Your task to perform on an android device: Clear the shopping cart on newegg.com. Add "razer huntsman" to the cart on newegg.com, then select checkout. Image 0: 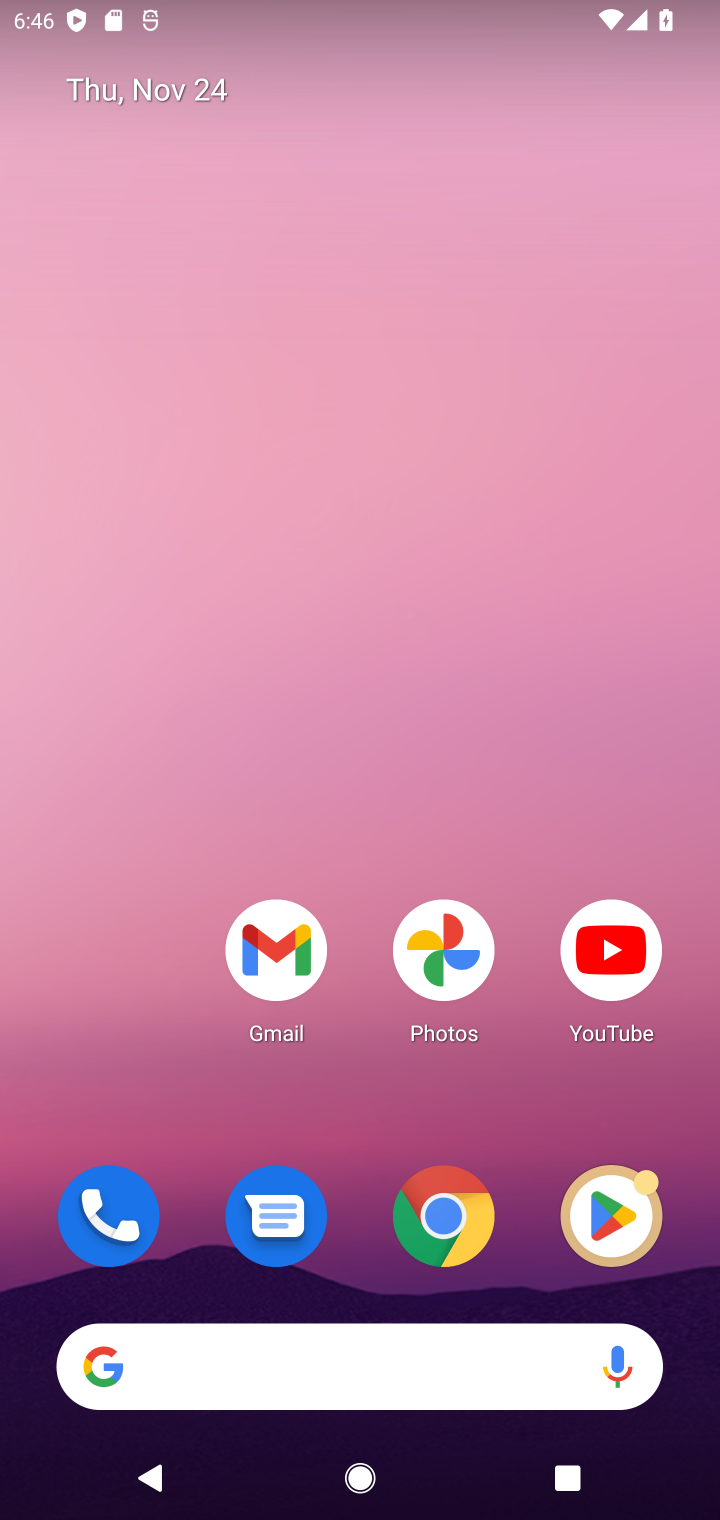
Step 0: click (435, 1229)
Your task to perform on an android device: Clear the shopping cart on newegg.com. Add "razer huntsman" to the cart on newegg.com, then select checkout. Image 1: 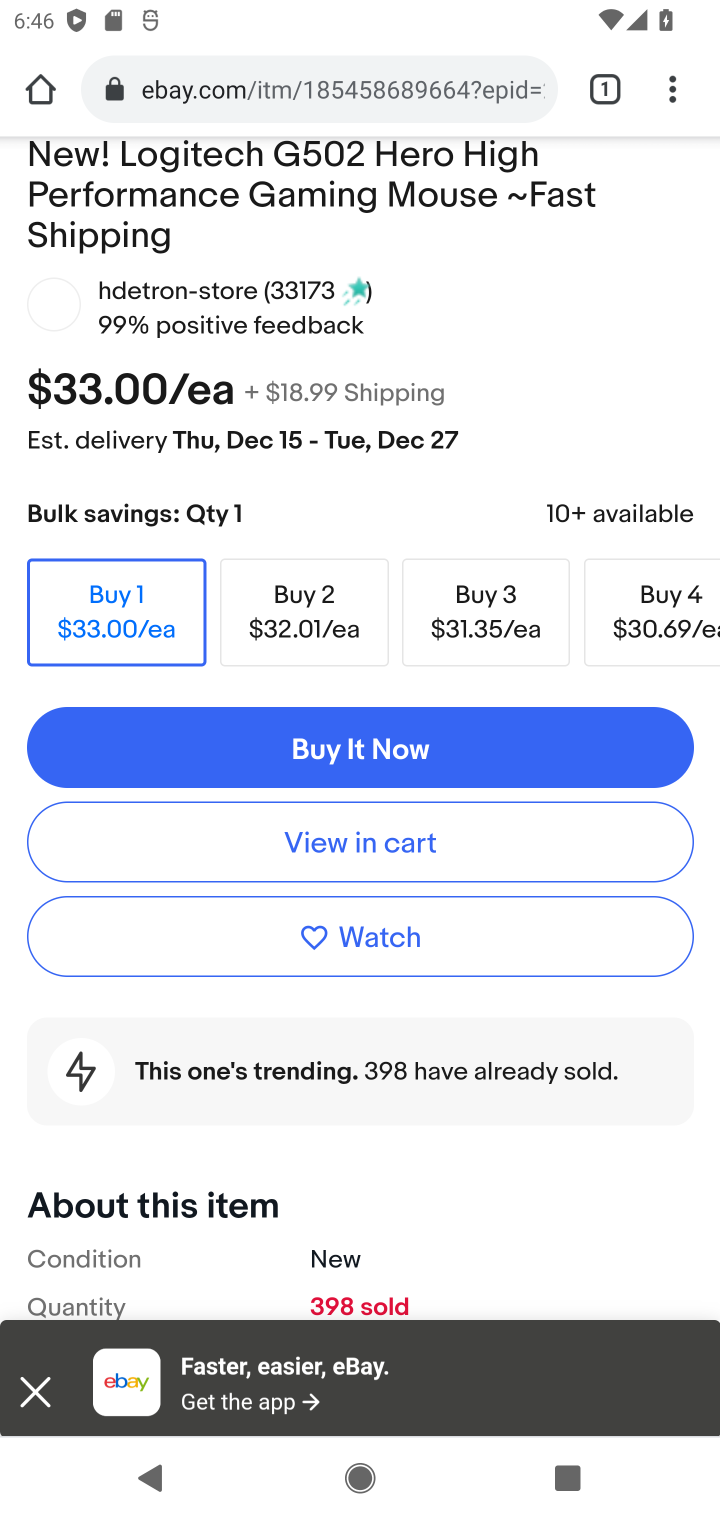
Step 1: click (303, 87)
Your task to perform on an android device: Clear the shopping cart on newegg.com. Add "razer huntsman" to the cart on newegg.com, then select checkout. Image 2: 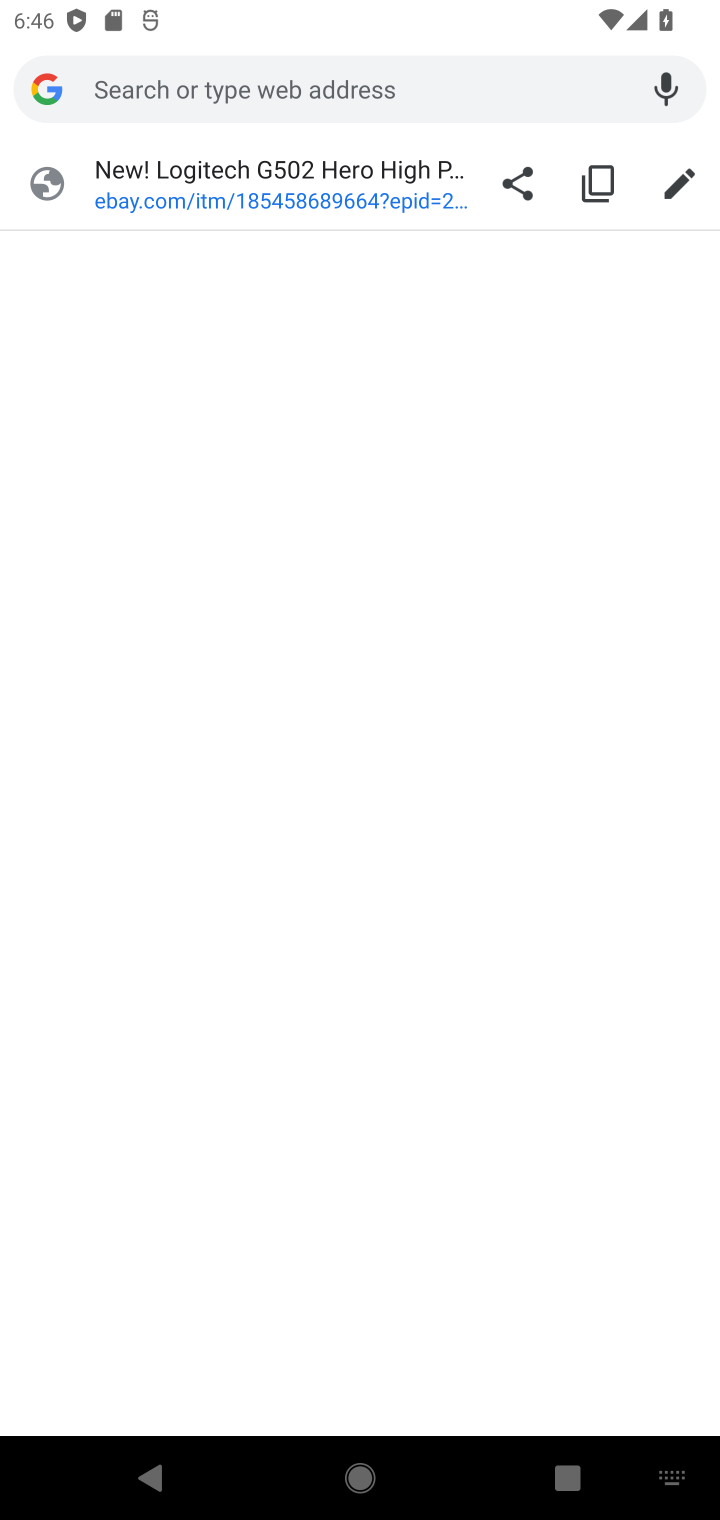
Step 2: type "newegg.com"
Your task to perform on an android device: Clear the shopping cart on newegg.com. Add "razer huntsman" to the cart on newegg.com, then select checkout. Image 3: 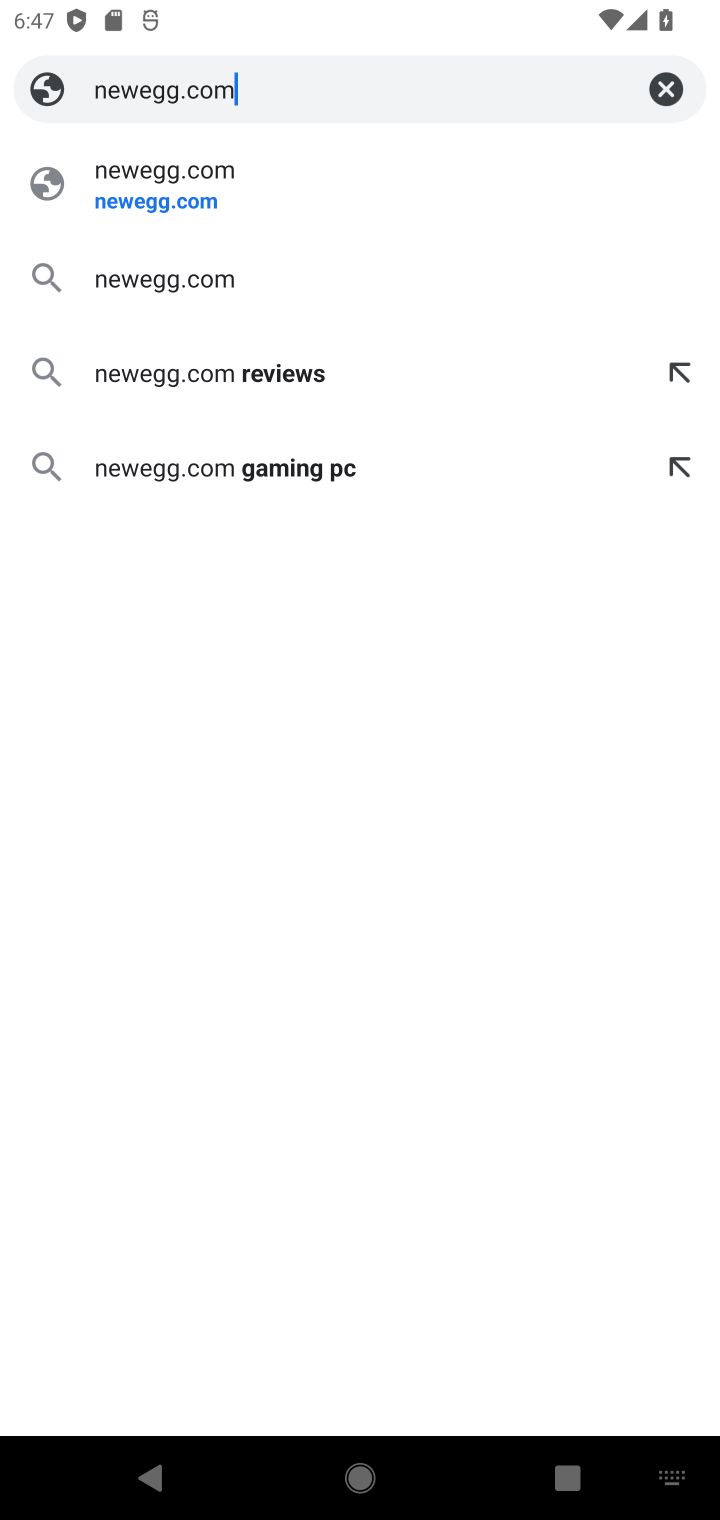
Step 3: click (221, 181)
Your task to perform on an android device: Clear the shopping cart on newegg.com. Add "razer huntsman" to the cart on newegg.com, then select checkout. Image 4: 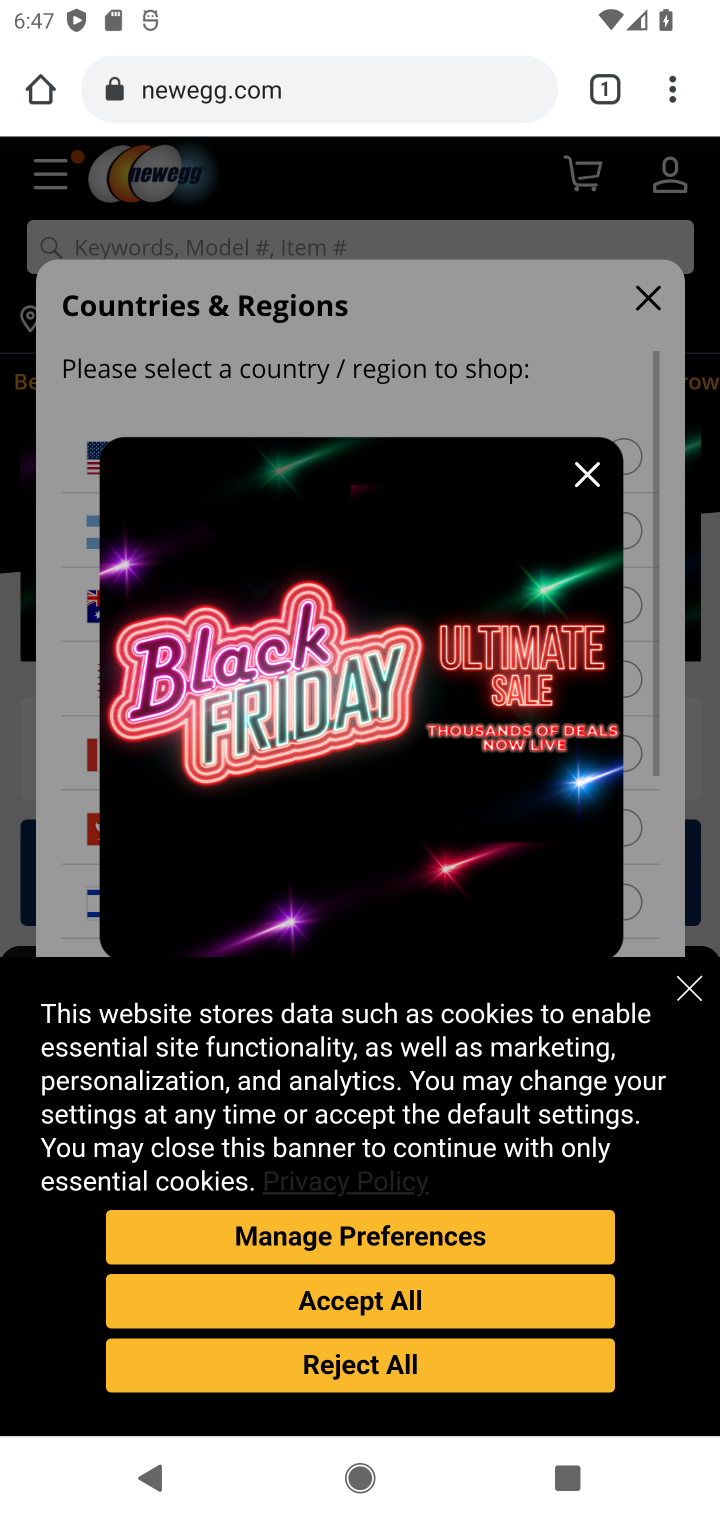
Step 4: click (653, 288)
Your task to perform on an android device: Clear the shopping cart on newegg.com. Add "razer huntsman" to the cart on newegg.com, then select checkout. Image 5: 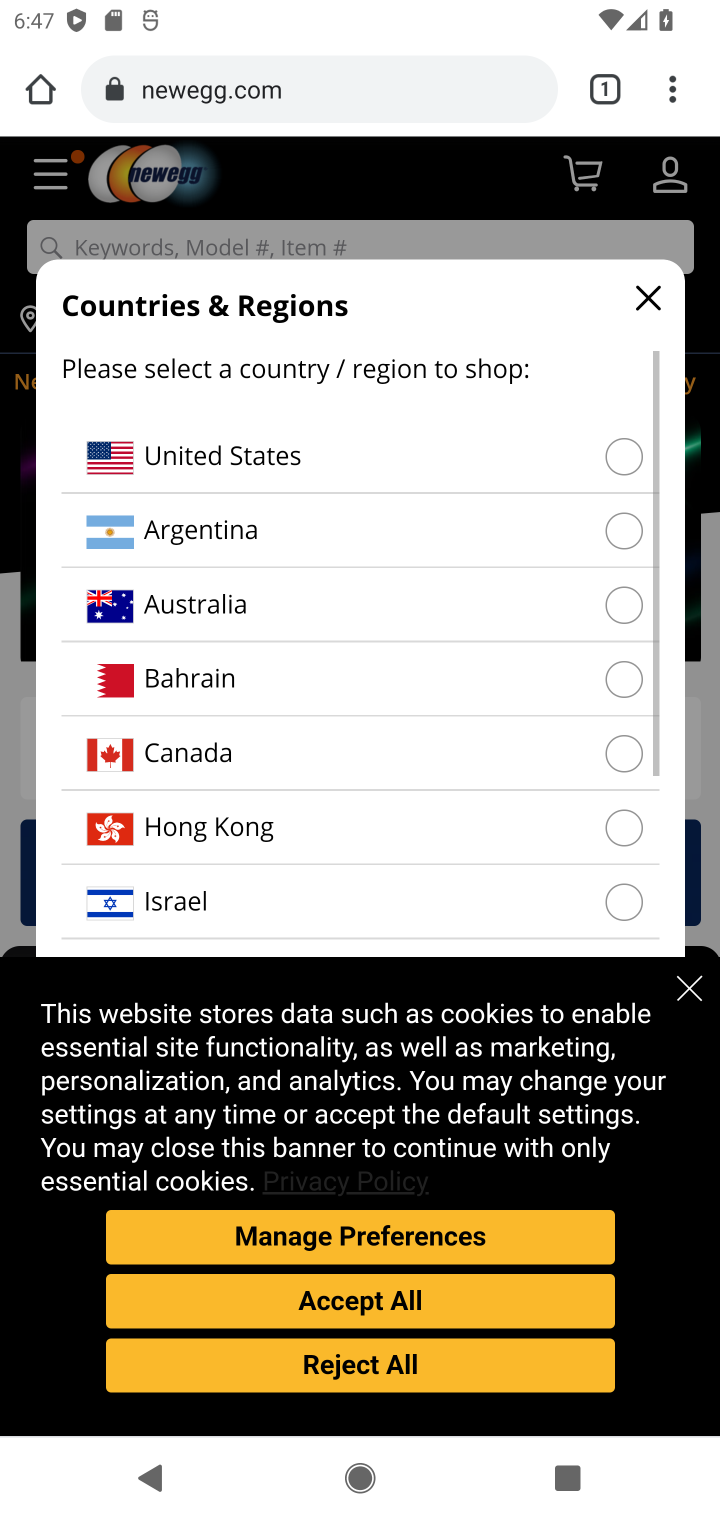
Step 5: click (648, 289)
Your task to perform on an android device: Clear the shopping cart on newegg.com. Add "razer huntsman" to the cart on newegg.com, then select checkout. Image 6: 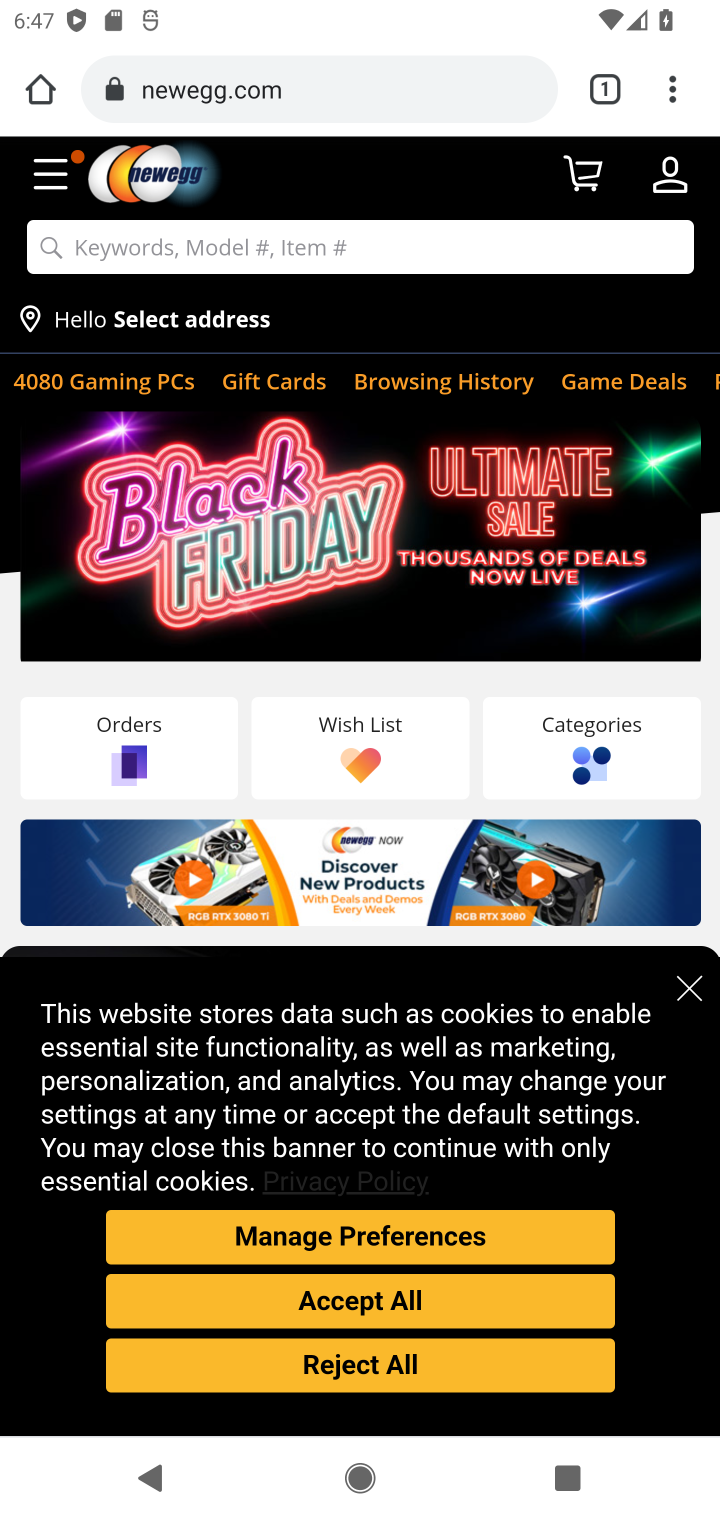
Step 6: click (568, 163)
Your task to perform on an android device: Clear the shopping cart on newegg.com. Add "razer huntsman" to the cart on newegg.com, then select checkout. Image 7: 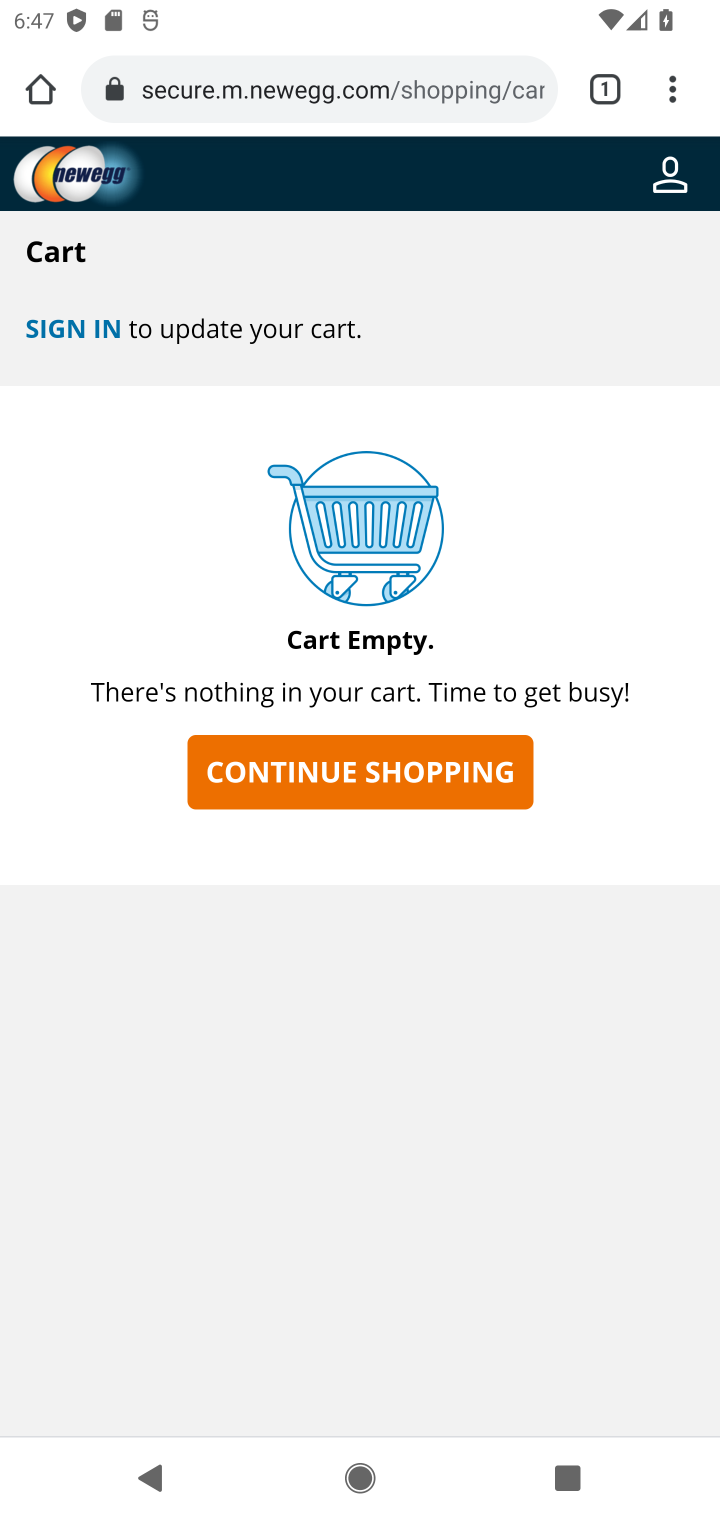
Step 7: press back button
Your task to perform on an android device: Clear the shopping cart on newegg.com. Add "razer huntsman" to the cart on newegg.com, then select checkout. Image 8: 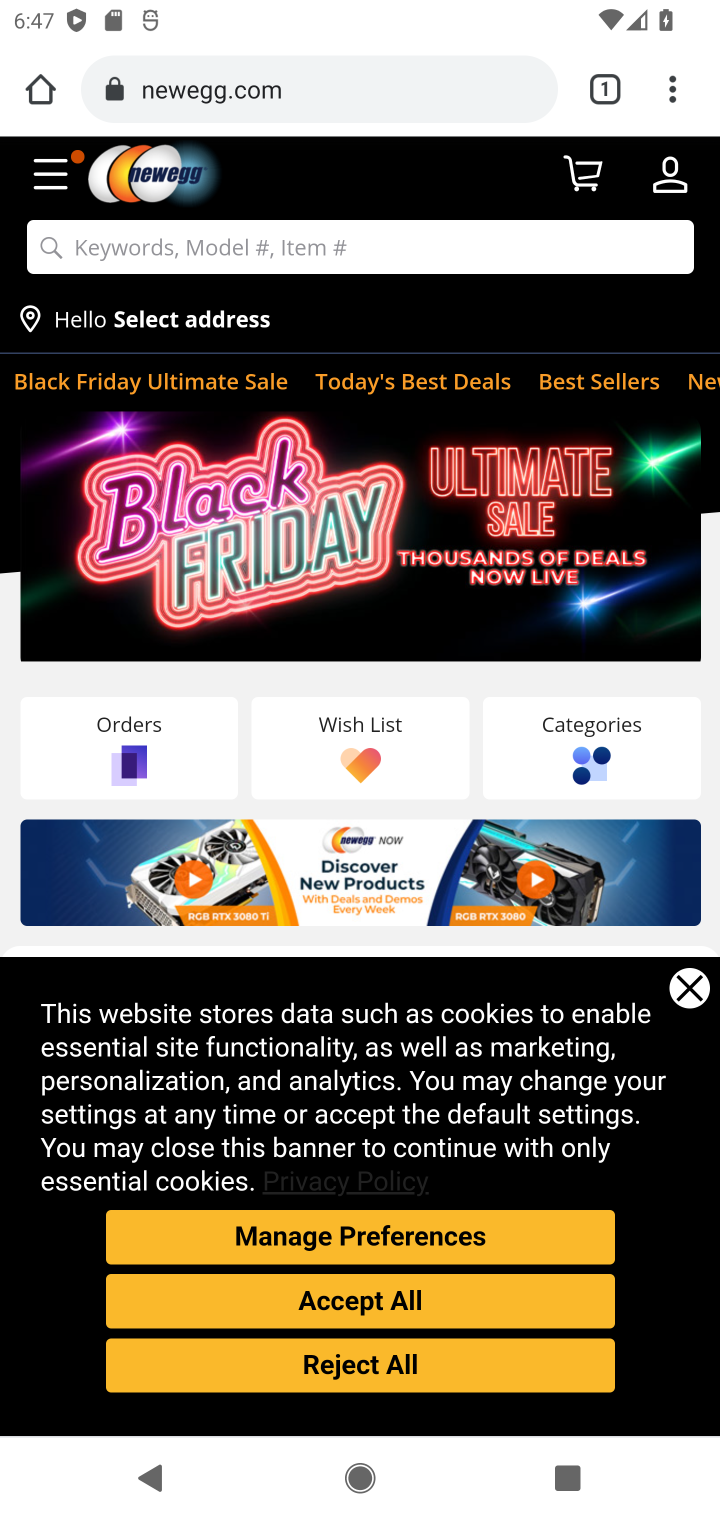
Step 8: click (363, 245)
Your task to perform on an android device: Clear the shopping cart on newegg.com. Add "razer huntsman" to the cart on newegg.com, then select checkout. Image 9: 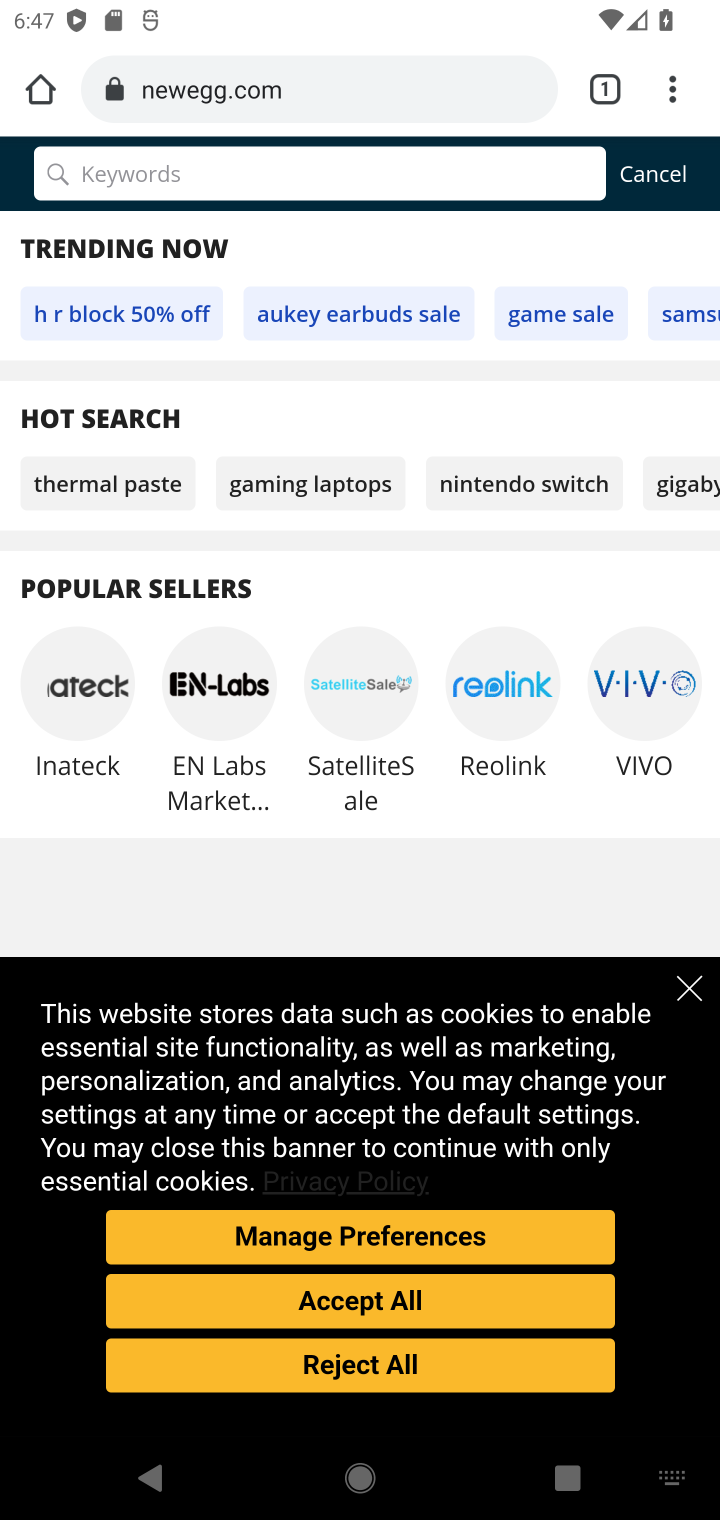
Step 9: type "razer huntsman"
Your task to perform on an android device: Clear the shopping cart on newegg.com. Add "razer huntsman" to the cart on newegg.com, then select checkout. Image 10: 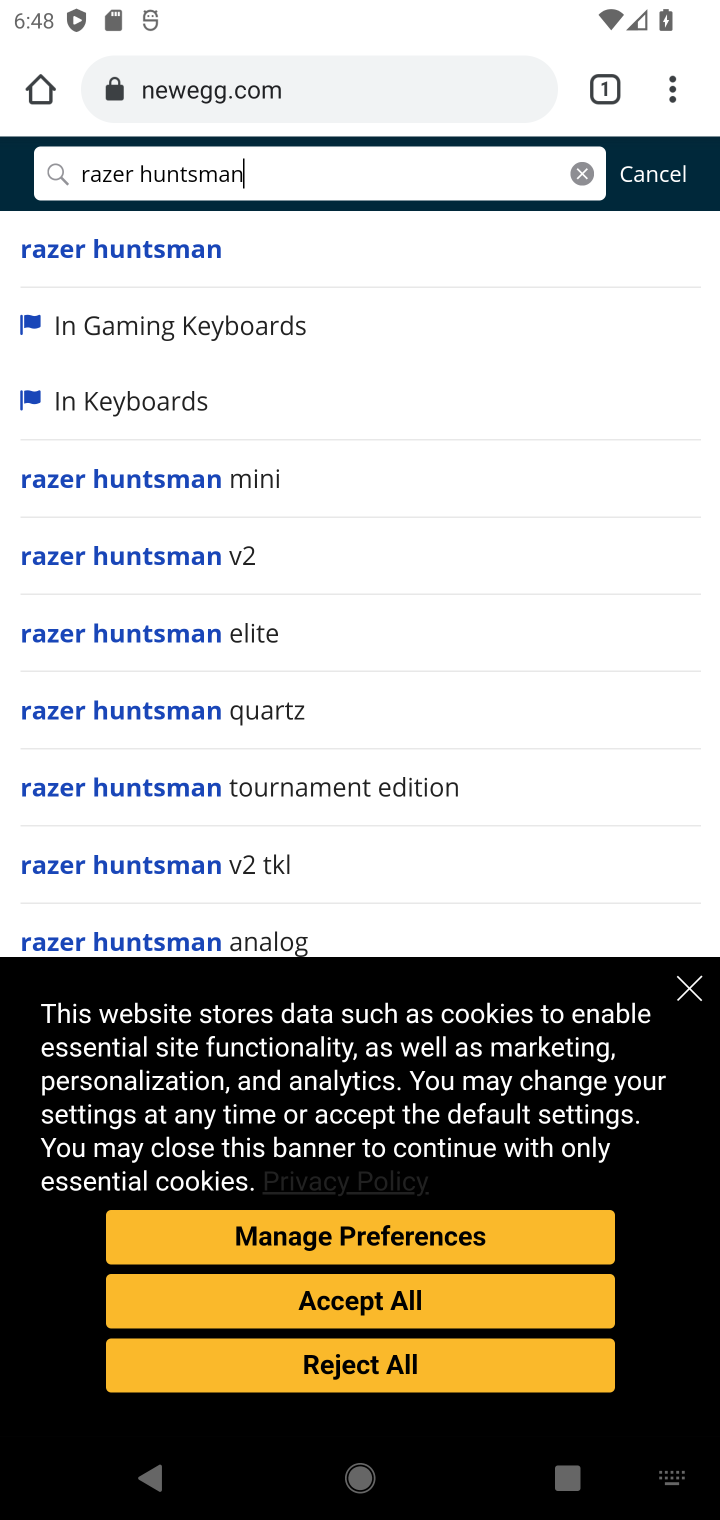
Step 10: click (58, 173)
Your task to perform on an android device: Clear the shopping cart on newegg.com. Add "razer huntsman" to the cart on newegg.com, then select checkout. Image 11: 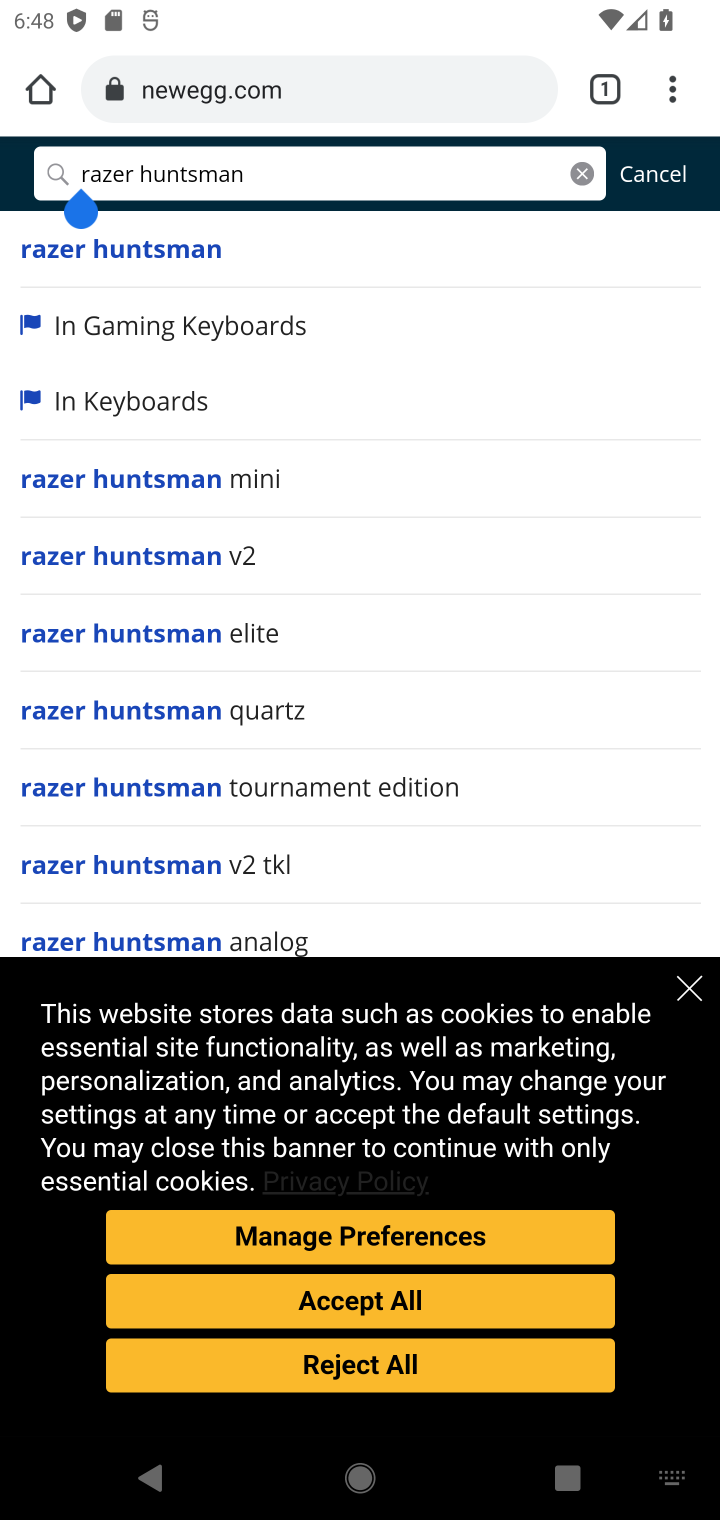
Step 11: click (155, 479)
Your task to perform on an android device: Clear the shopping cart on newegg.com. Add "razer huntsman" to the cart on newegg.com, then select checkout. Image 12: 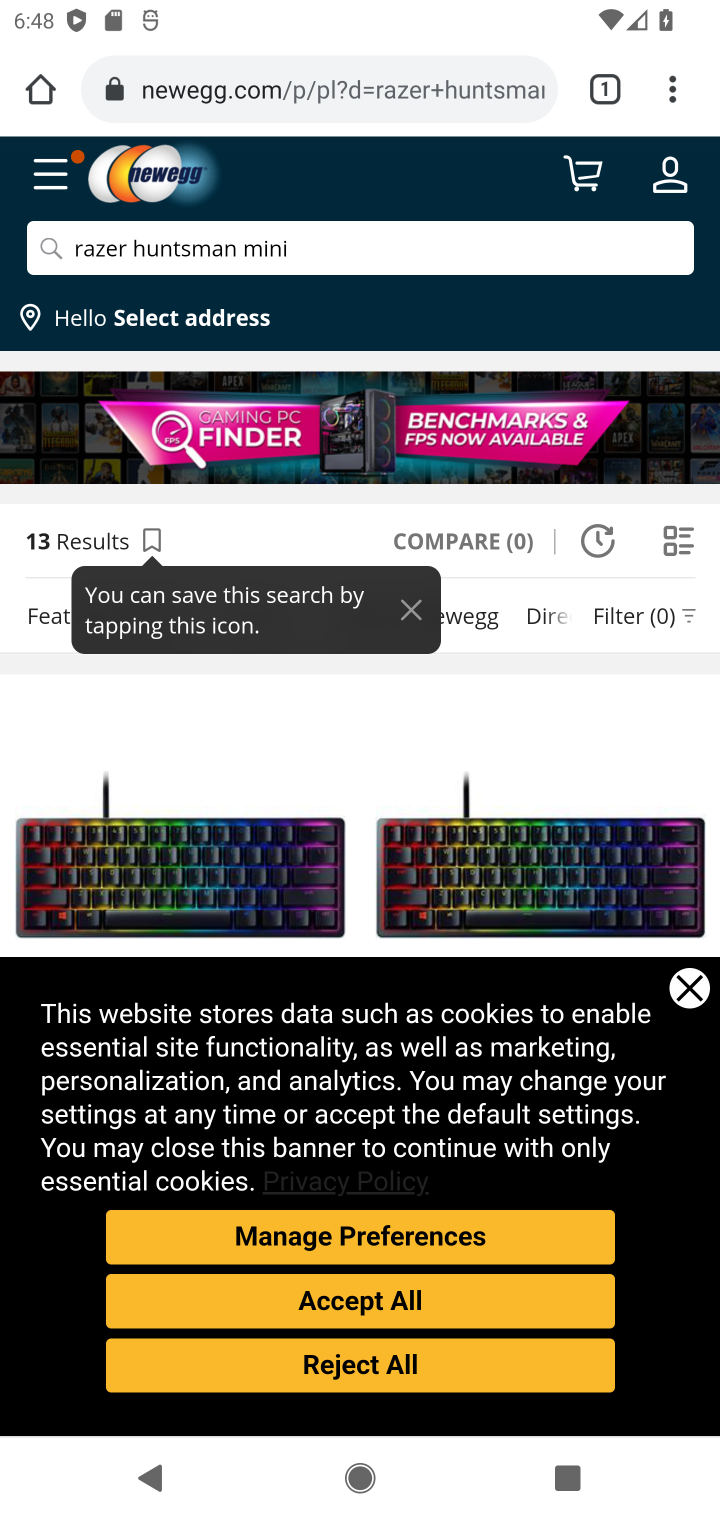
Step 12: click (696, 992)
Your task to perform on an android device: Clear the shopping cart on newegg.com. Add "razer huntsman" to the cart on newegg.com, then select checkout. Image 13: 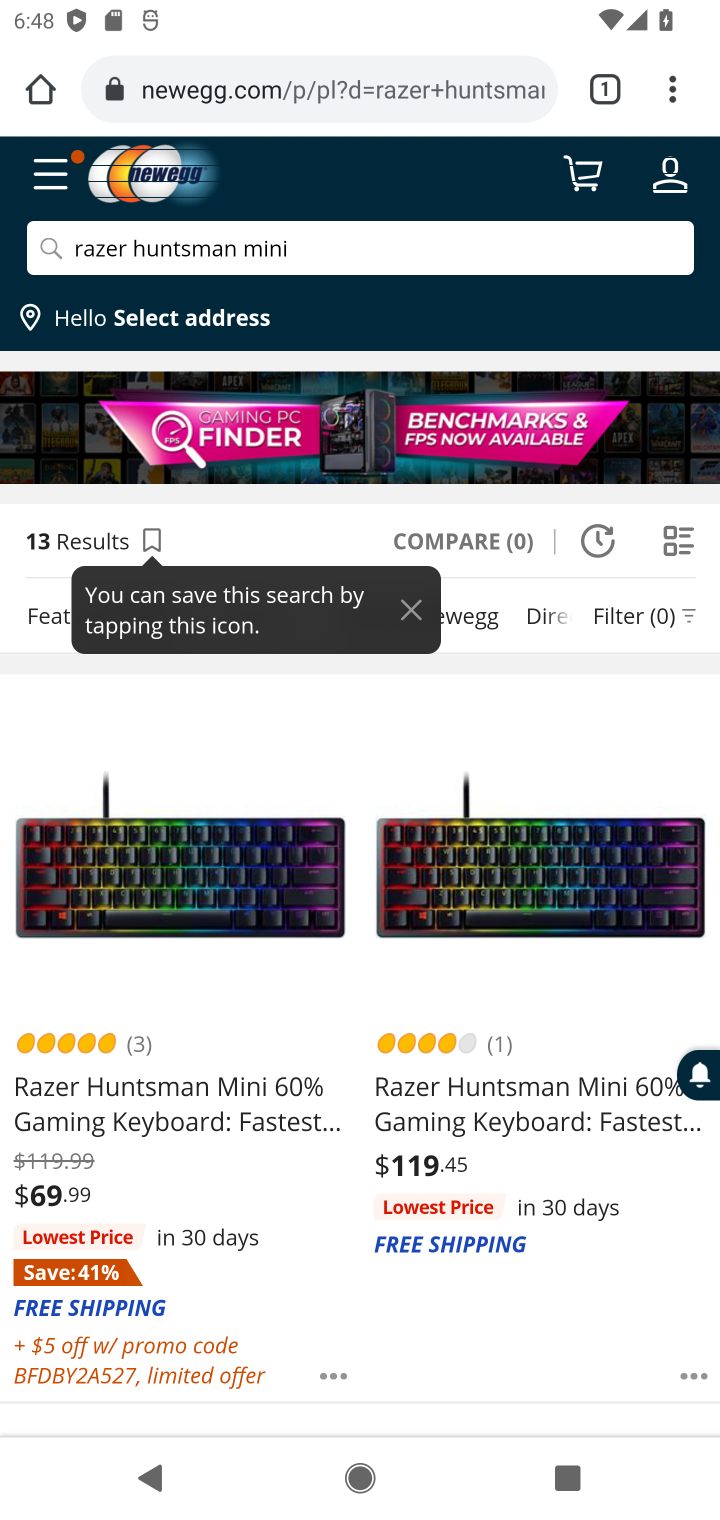
Step 13: drag from (273, 1188) to (270, 925)
Your task to perform on an android device: Clear the shopping cart on newegg.com. Add "razer huntsman" to the cart on newegg.com, then select checkout. Image 14: 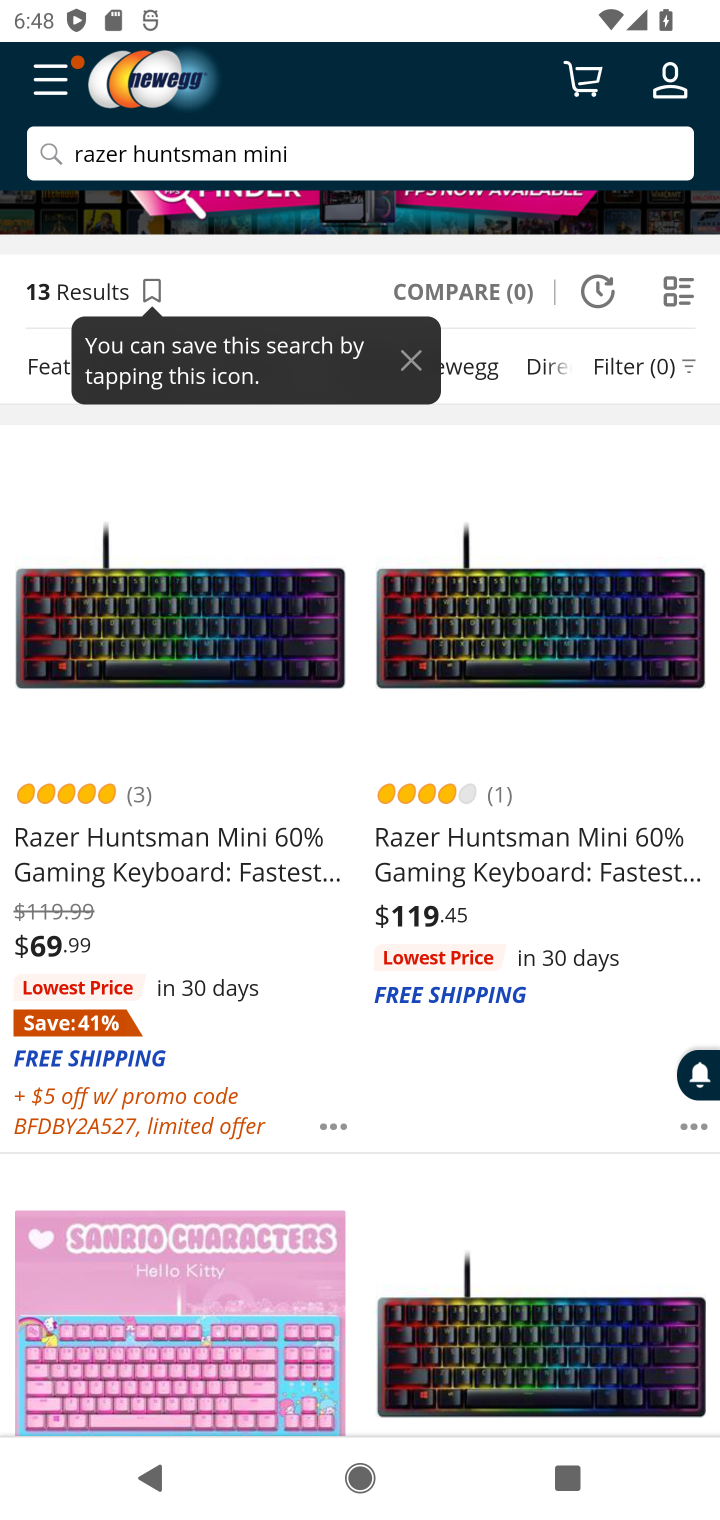
Step 14: click (137, 779)
Your task to perform on an android device: Clear the shopping cart on newegg.com. Add "razer huntsman" to the cart on newegg.com, then select checkout. Image 15: 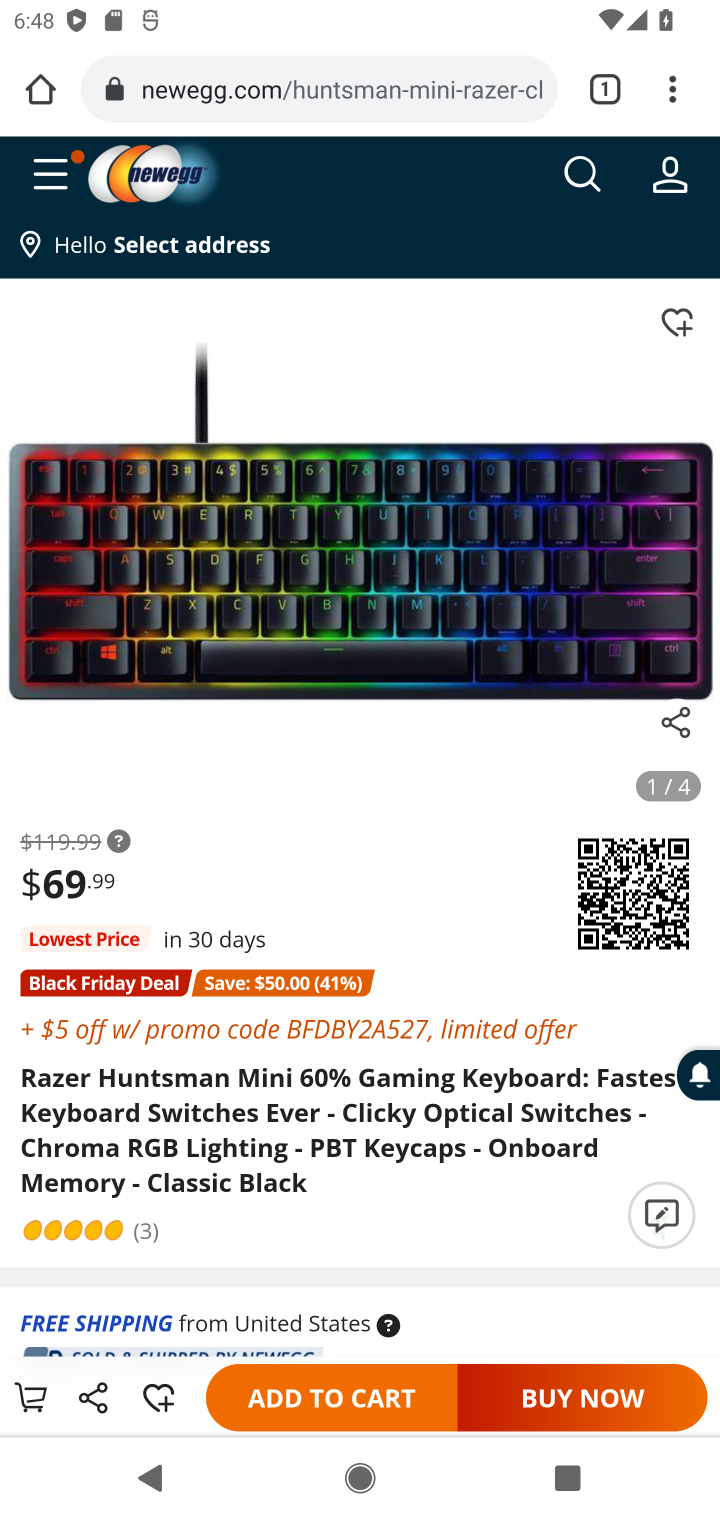
Step 15: drag from (435, 1181) to (428, 823)
Your task to perform on an android device: Clear the shopping cart on newegg.com. Add "razer huntsman" to the cart on newegg.com, then select checkout. Image 16: 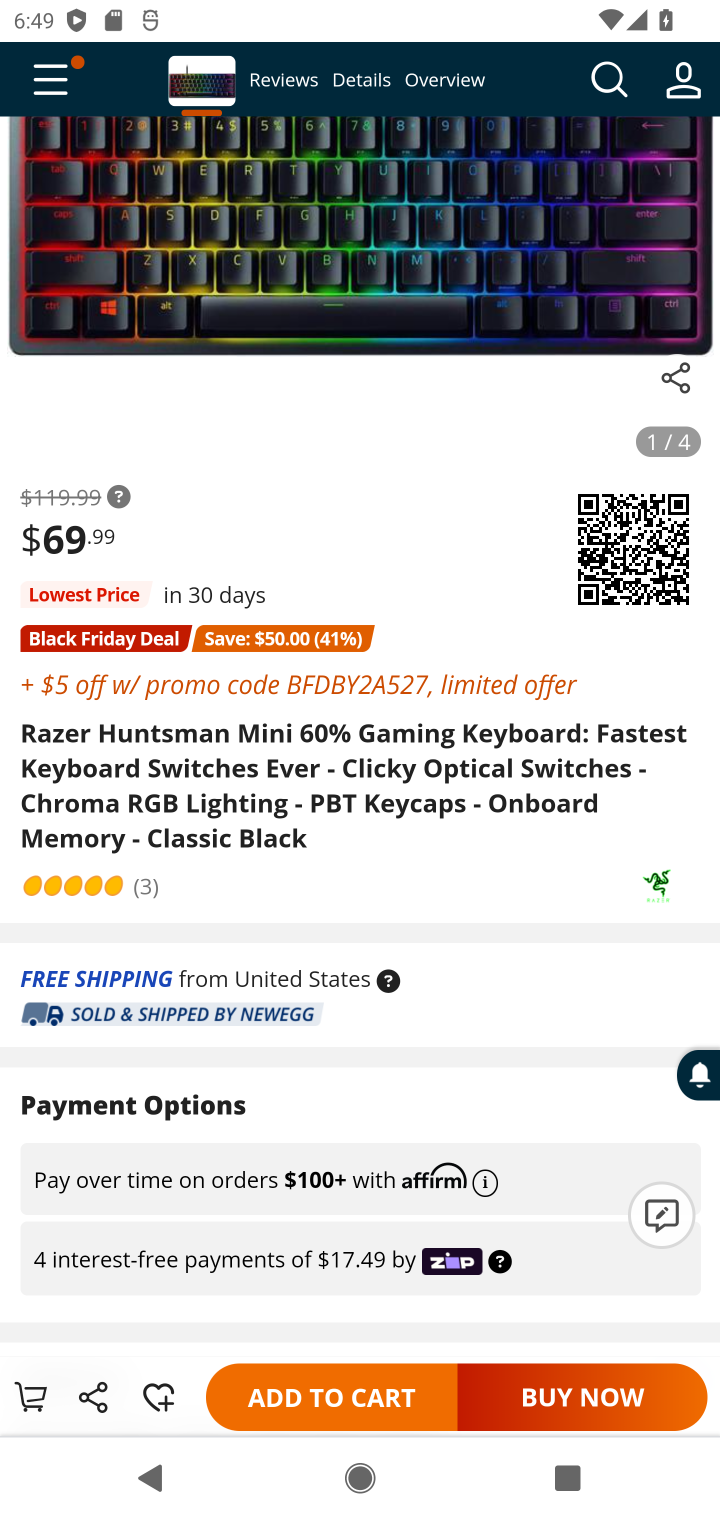
Step 16: drag from (411, 1189) to (411, 974)
Your task to perform on an android device: Clear the shopping cart on newegg.com. Add "razer huntsman" to the cart on newegg.com, then select checkout. Image 17: 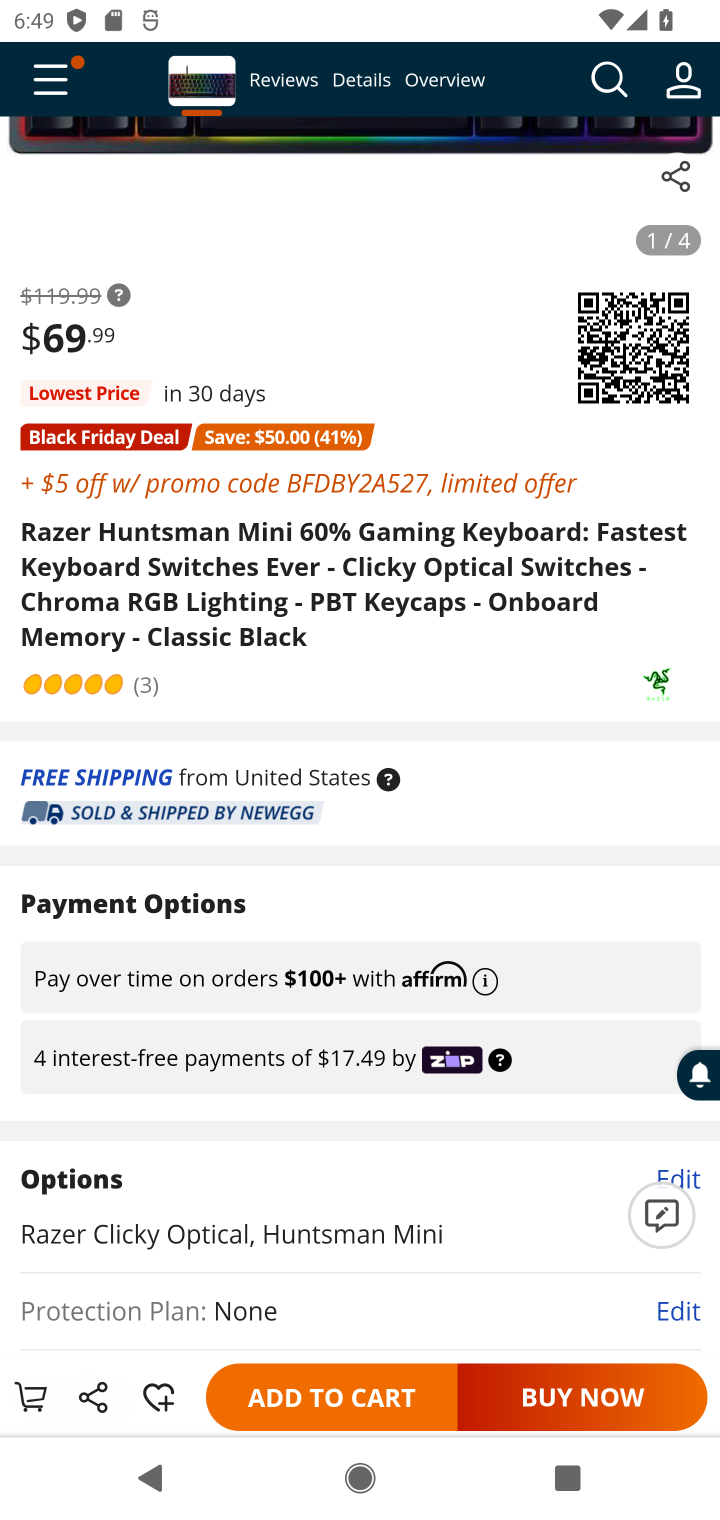
Step 17: click (354, 1394)
Your task to perform on an android device: Clear the shopping cart on newegg.com. Add "razer huntsman" to the cart on newegg.com, then select checkout. Image 18: 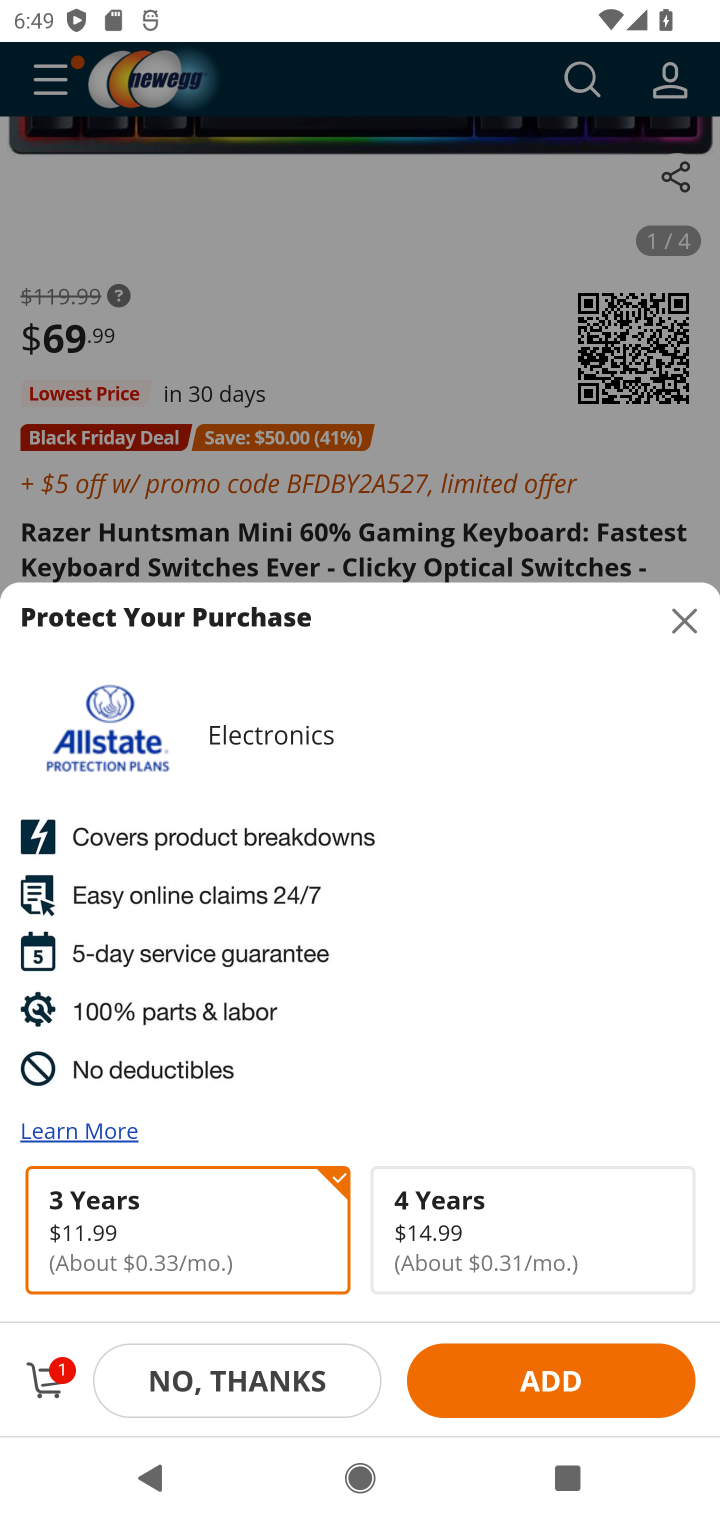
Step 18: click (38, 1388)
Your task to perform on an android device: Clear the shopping cart on newegg.com. Add "razer huntsman" to the cart on newegg.com, then select checkout. Image 19: 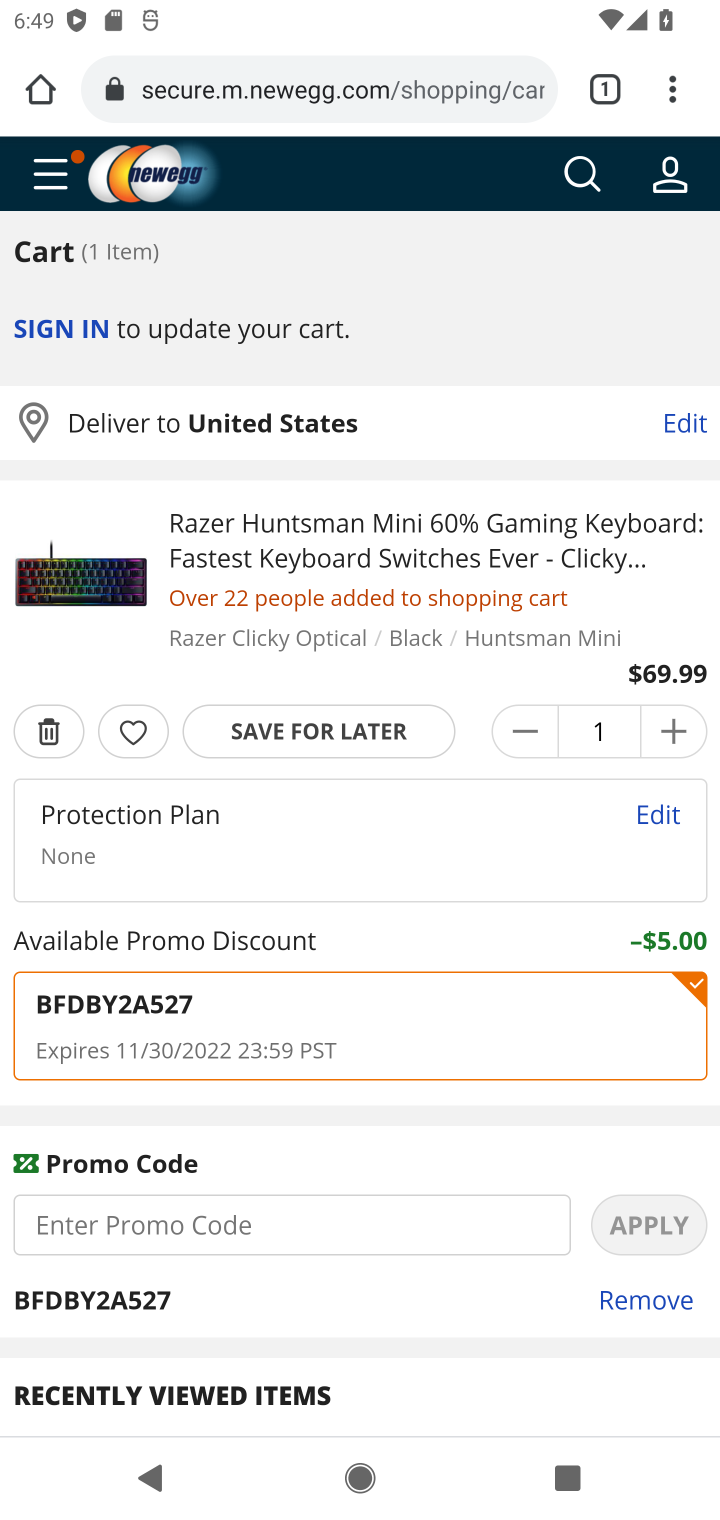
Step 19: click (322, 1364)
Your task to perform on an android device: Clear the shopping cart on newegg.com. Add "razer huntsman" to the cart on newegg.com, then select checkout. Image 20: 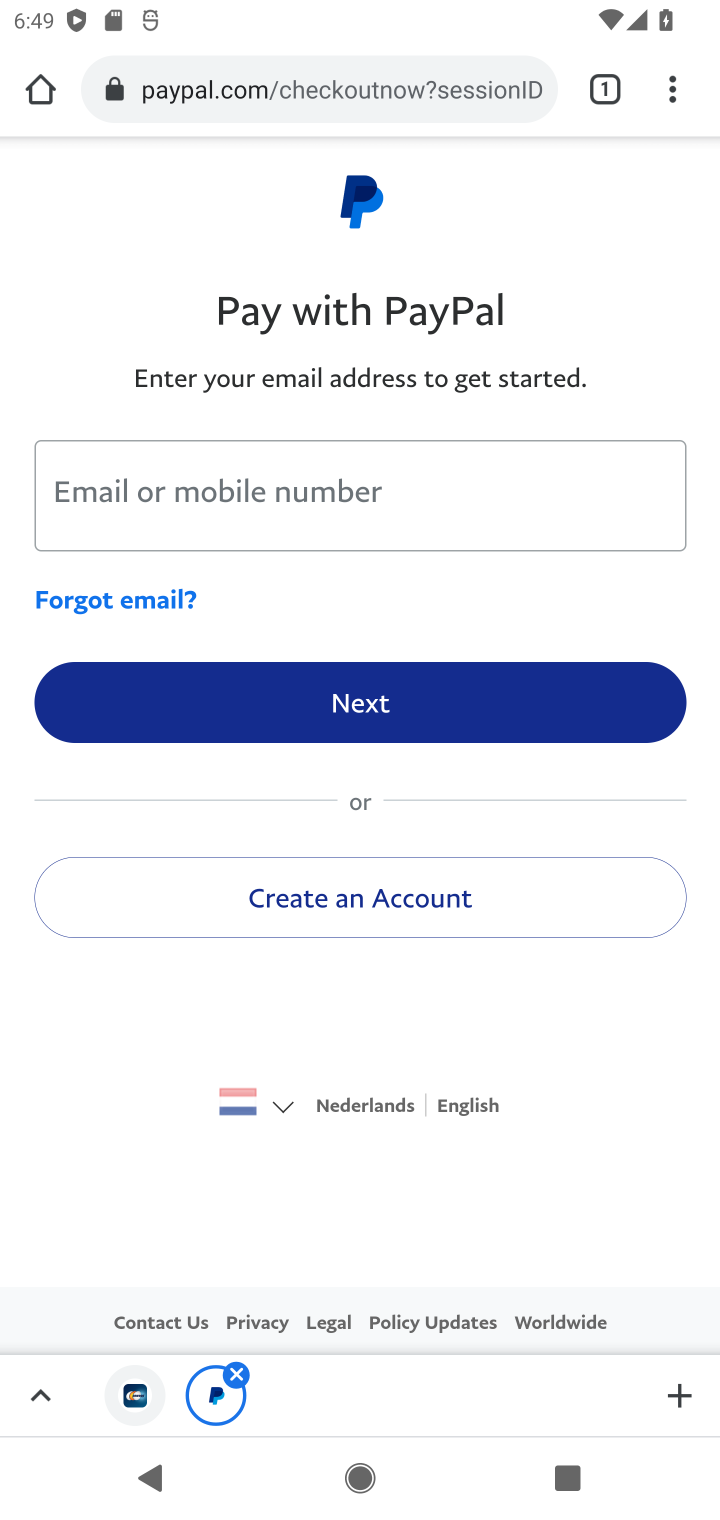
Step 20: task complete